Your task to perform on an android device: turn on location history Image 0: 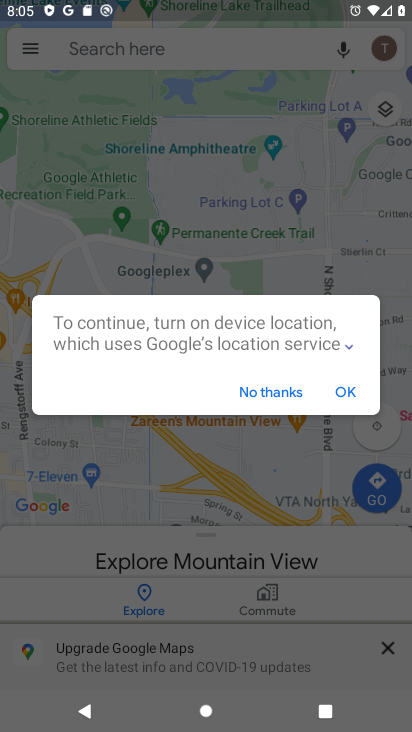
Step 0: press home button
Your task to perform on an android device: turn on location history Image 1: 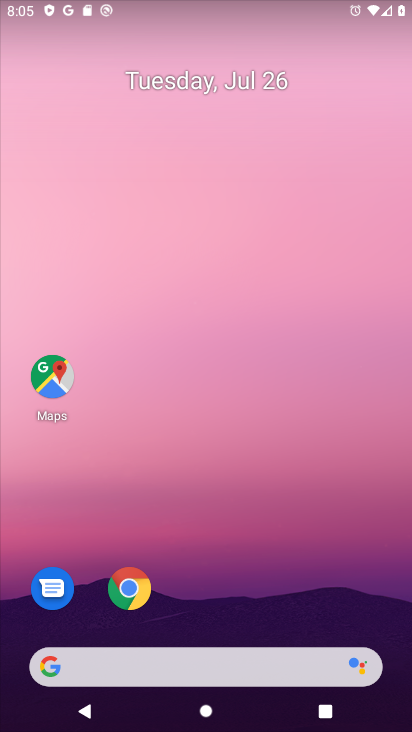
Step 1: drag from (249, 600) to (207, 98)
Your task to perform on an android device: turn on location history Image 2: 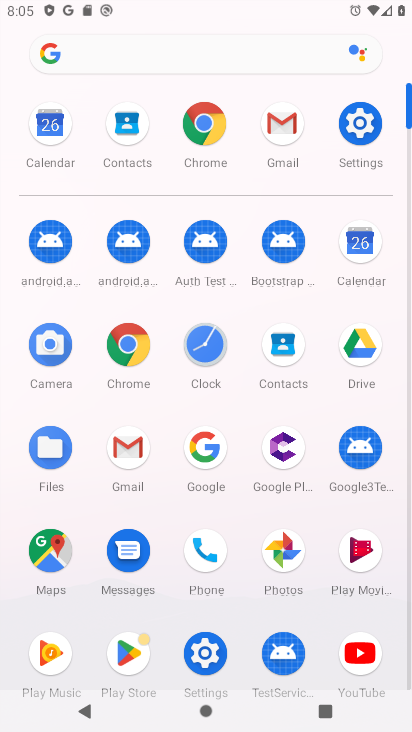
Step 2: click (362, 138)
Your task to perform on an android device: turn on location history Image 3: 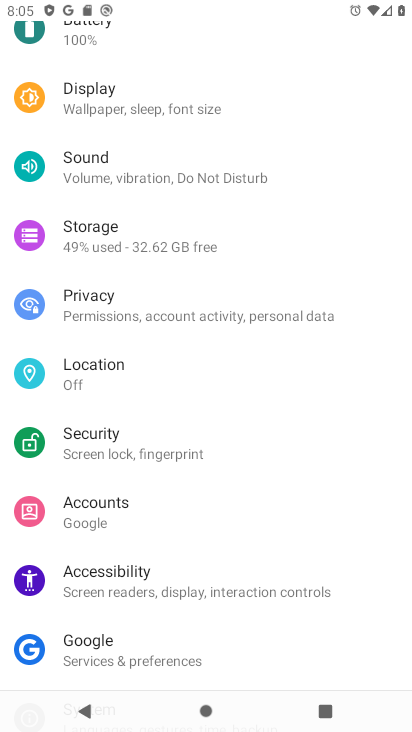
Step 3: click (101, 374)
Your task to perform on an android device: turn on location history Image 4: 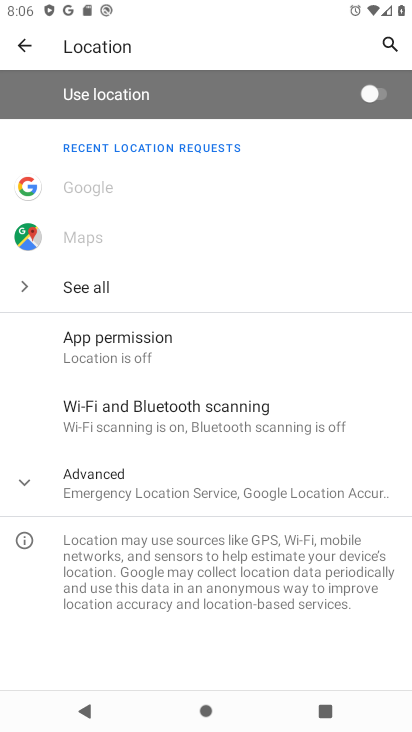
Step 4: click (188, 482)
Your task to perform on an android device: turn on location history Image 5: 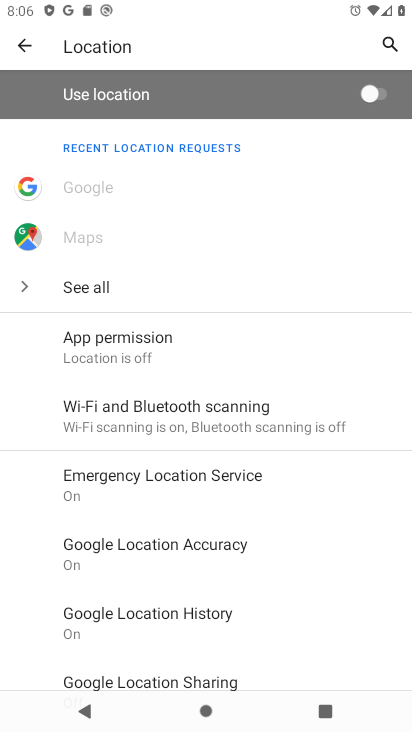
Step 5: click (148, 616)
Your task to perform on an android device: turn on location history Image 6: 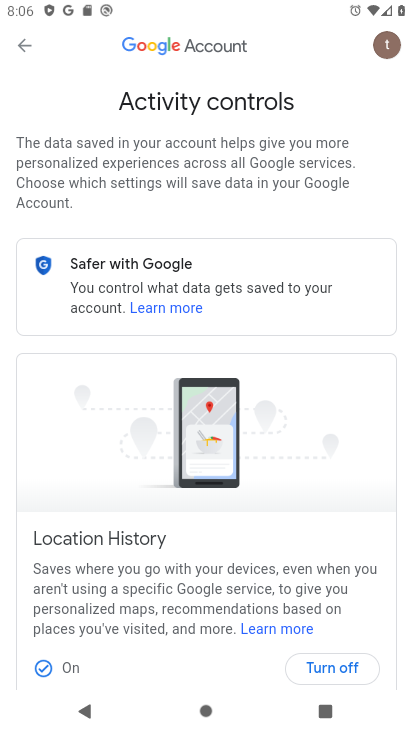
Step 6: task complete